Your task to perform on an android device: Open sound settings Image 0: 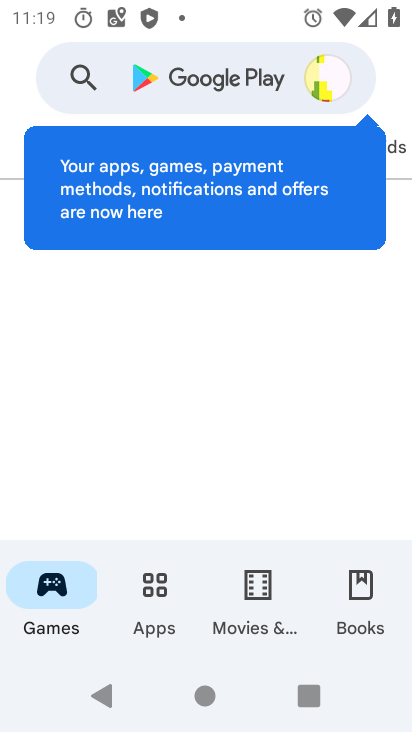
Step 0: press home button
Your task to perform on an android device: Open sound settings Image 1: 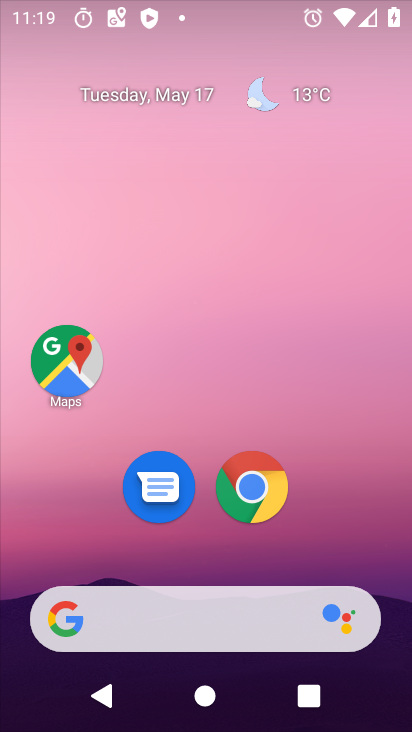
Step 1: drag from (223, 721) to (222, 140)
Your task to perform on an android device: Open sound settings Image 2: 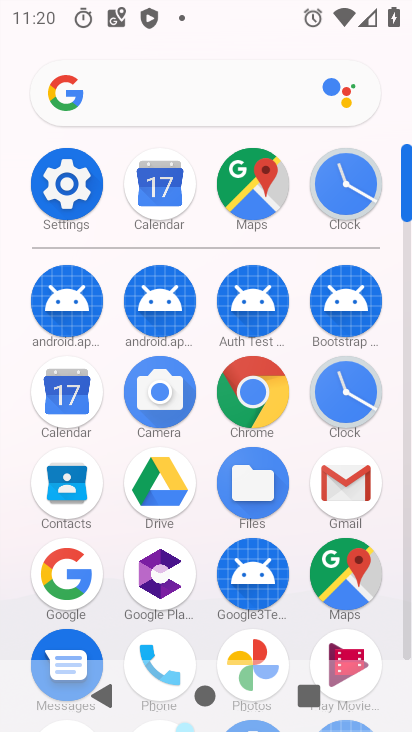
Step 2: click (65, 185)
Your task to perform on an android device: Open sound settings Image 3: 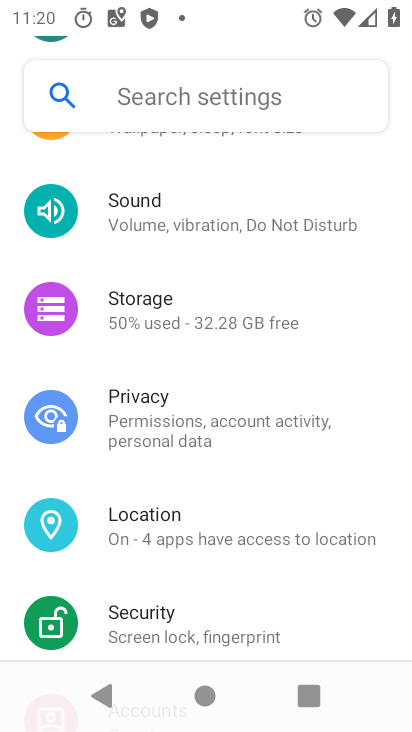
Step 3: click (148, 216)
Your task to perform on an android device: Open sound settings Image 4: 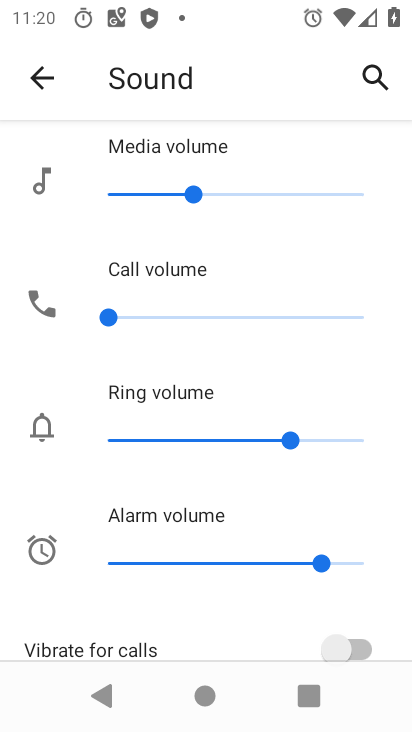
Step 4: task complete